Your task to perform on an android device: Go to Maps Image 0: 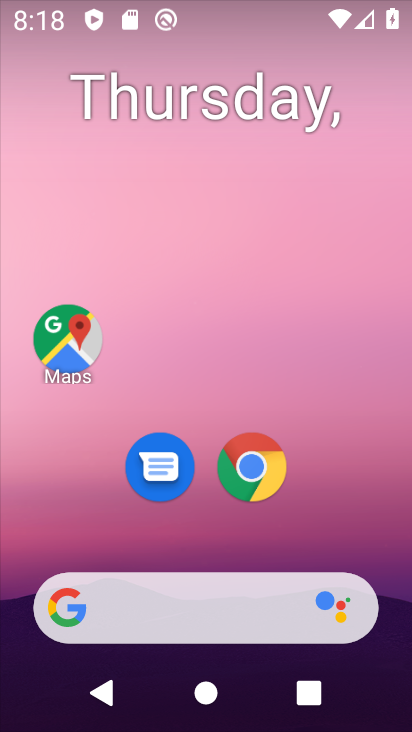
Step 0: click (75, 352)
Your task to perform on an android device: Go to Maps Image 1: 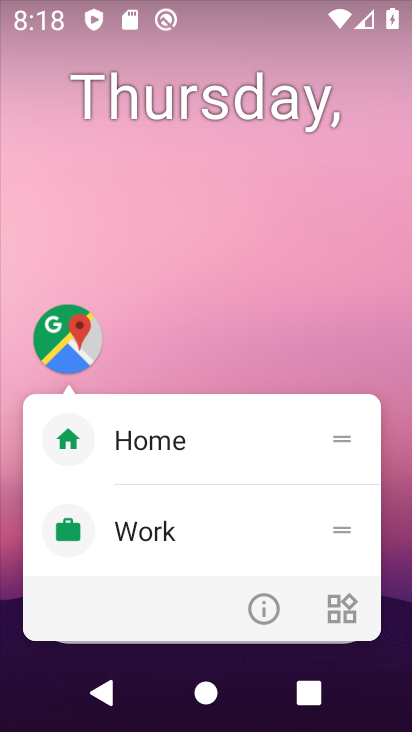
Step 1: click (59, 339)
Your task to perform on an android device: Go to Maps Image 2: 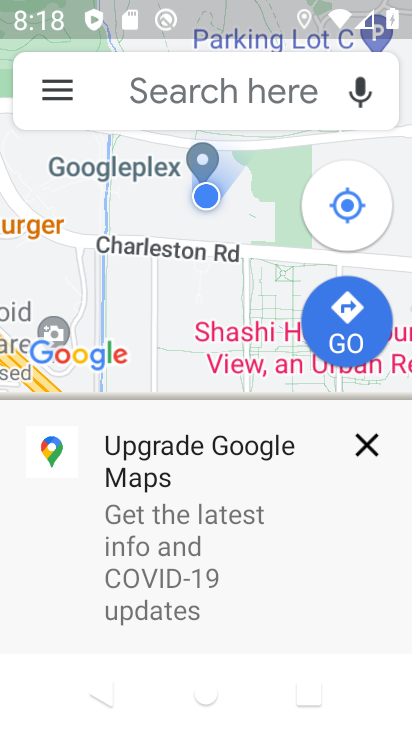
Step 2: click (352, 433)
Your task to perform on an android device: Go to Maps Image 3: 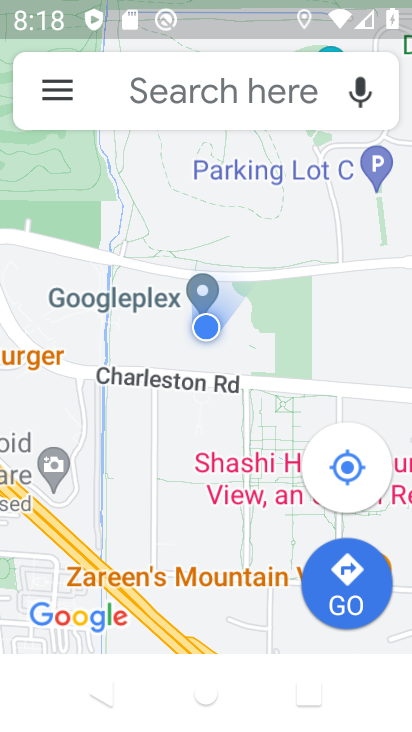
Step 3: task complete